Your task to perform on an android device: Go to Wikipedia Image 0: 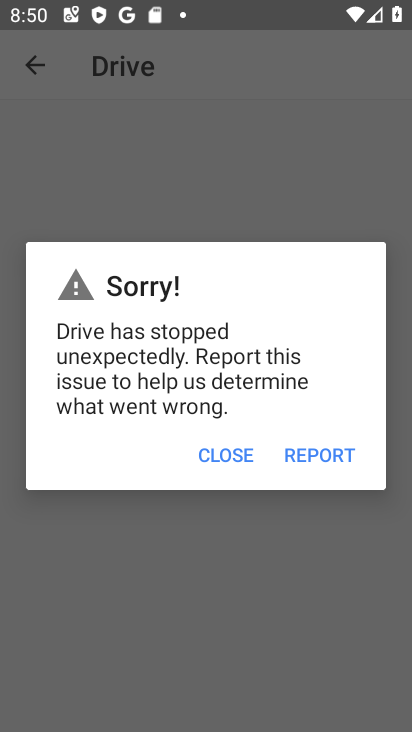
Step 0: press home button
Your task to perform on an android device: Go to Wikipedia Image 1: 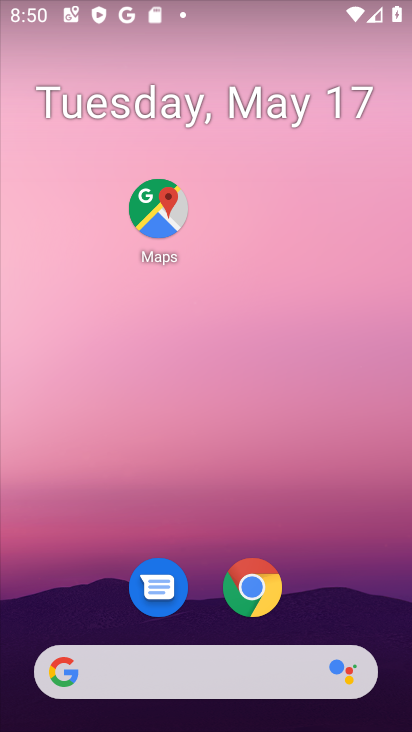
Step 1: click (243, 588)
Your task to perform on an android device: Go to Wikipedia Image 2: 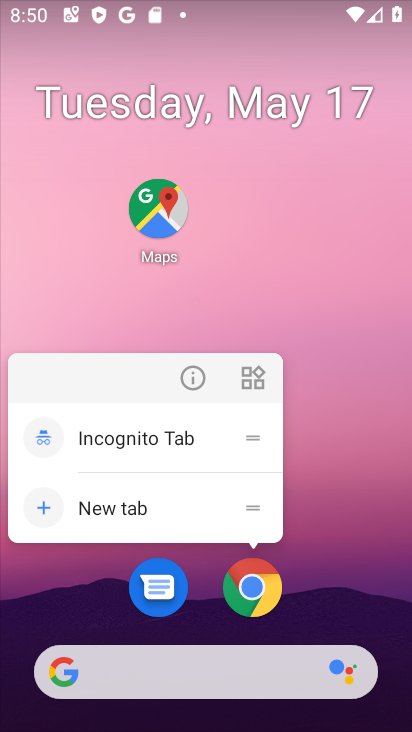
Step 2: click (259, 590)
Your task to perform on an android device: Go to Wikipedia Image 3: 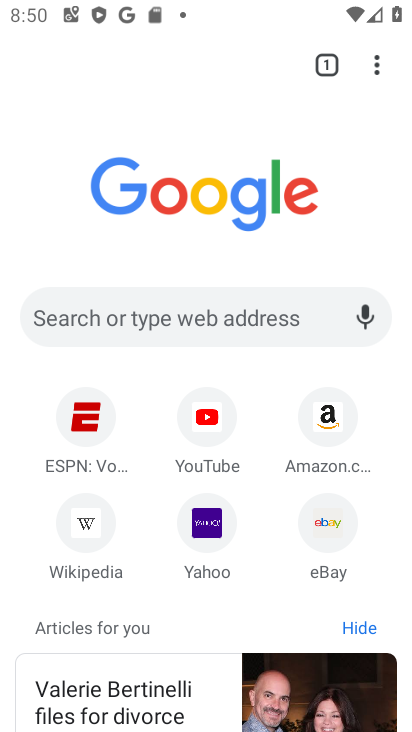
Step 3: click (81, 523)
Your task to perform on an android device: Go to Wikipedia Image 4: 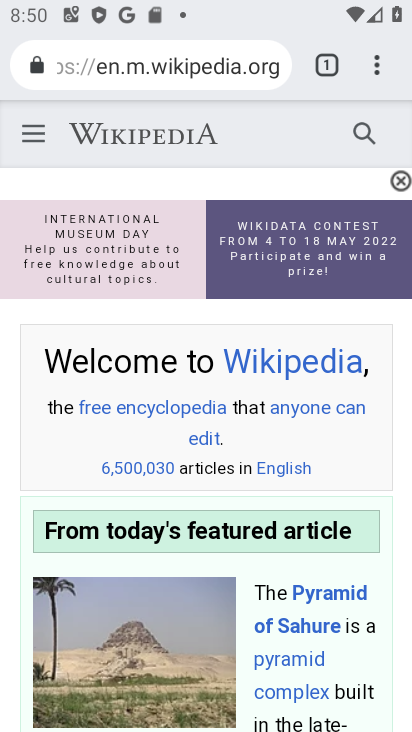
Step 4: task complete